Your task to perform on an android device: Open Android settings Image 0: 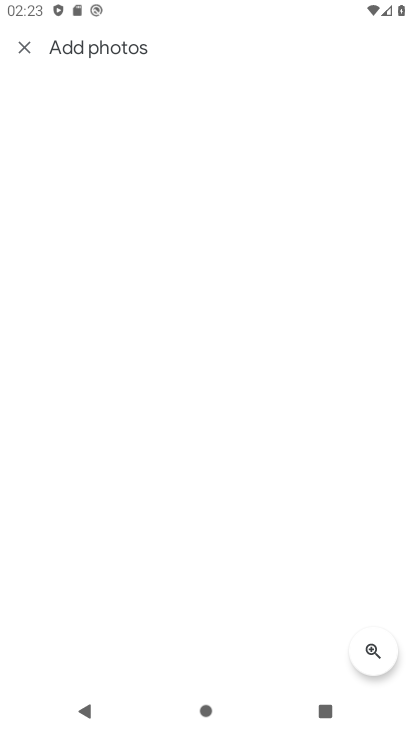
Step 0: press home button
Your task to perform on an android device: Open Android settings Image 1: 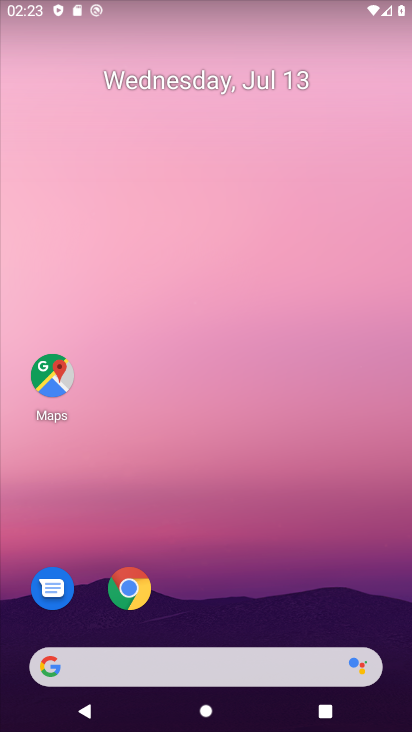
Step 1: drag from (247, 439) to (345, 50)
Your task to perform on an android device: Open Android settings Image 2: 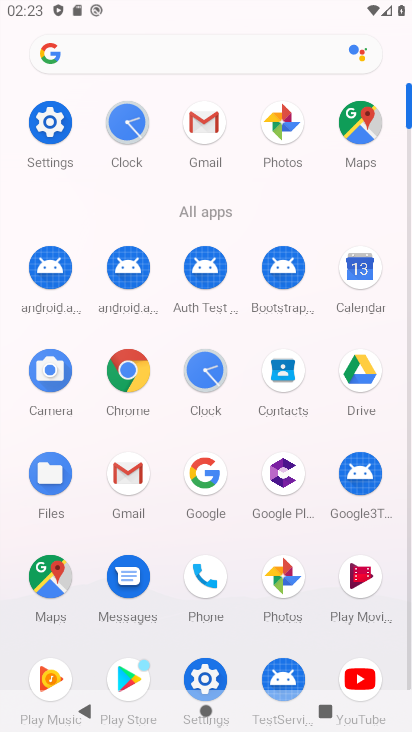
Step 2: click (37, 126)
Your task to perform on an android device: Open Android settings Image 3: 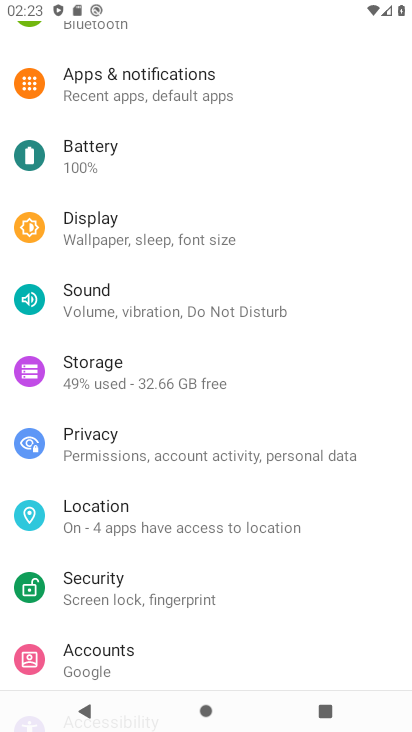
Step 3: task complete